Your task to perform on an android device: Check the news Image 0: 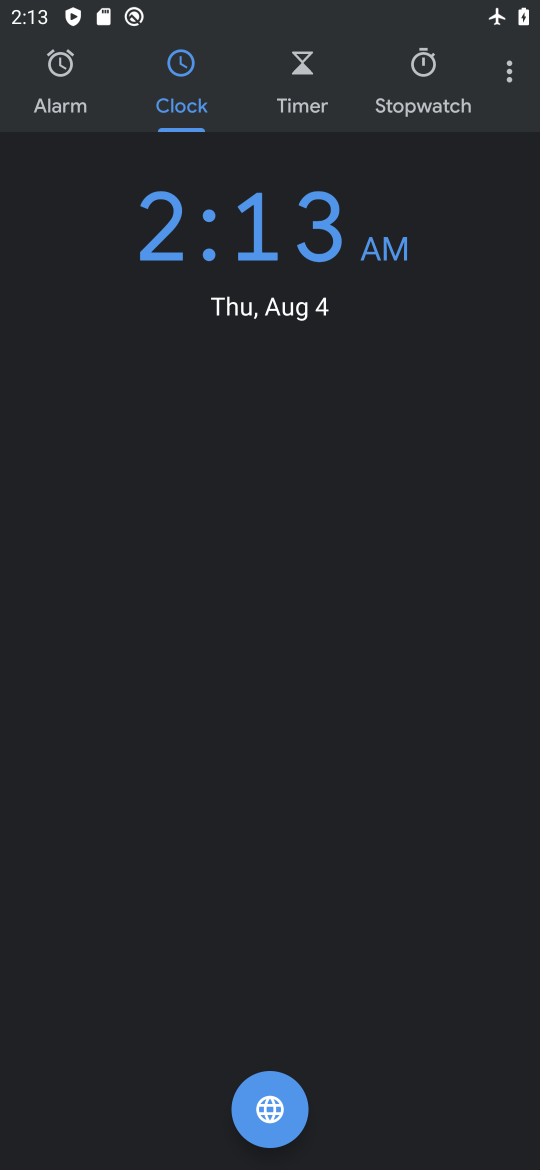
Step 0: task complete